Your task to perform on an android device: Open Google Chrome and click the shortcut for Amazon.com Image 0: 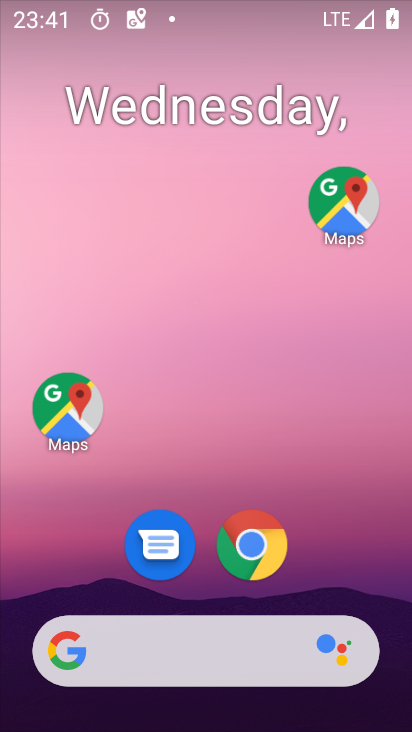
Step 0: click (250, 544)
Your task to perform on an android device: Open Google Chrome and click the shortcut for Amazon.com Image 1: 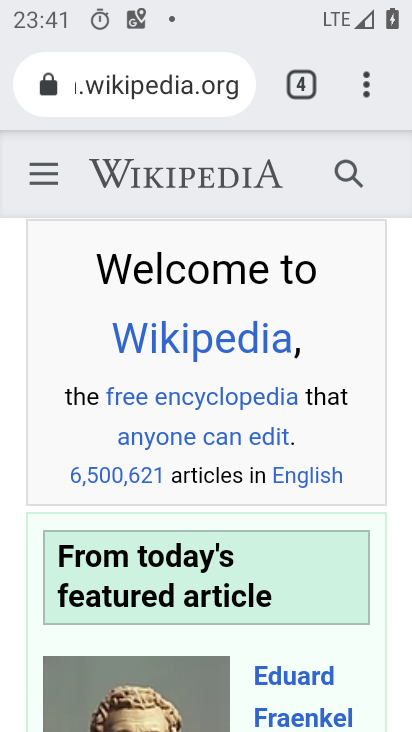
Step 1: click (366, 91)
Your task to perform on an android device: Open Google Chrome and click the shortcut for Amazon.com Image 2: 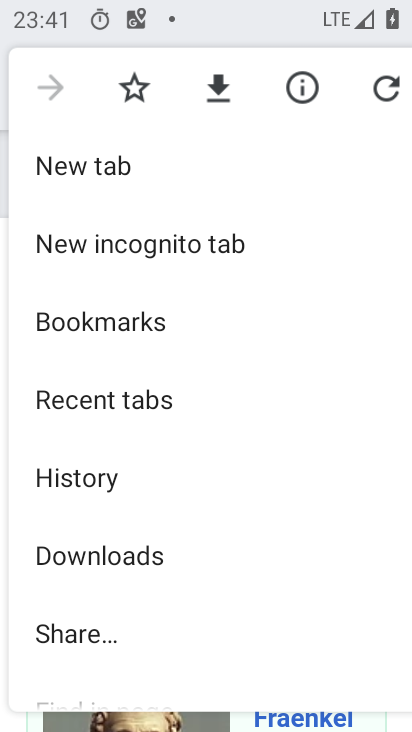
Step 2: click (184, 163)
Your task to perform on an android device: Open Google Chrome and click the shortcut for Amazon.com Image 3: 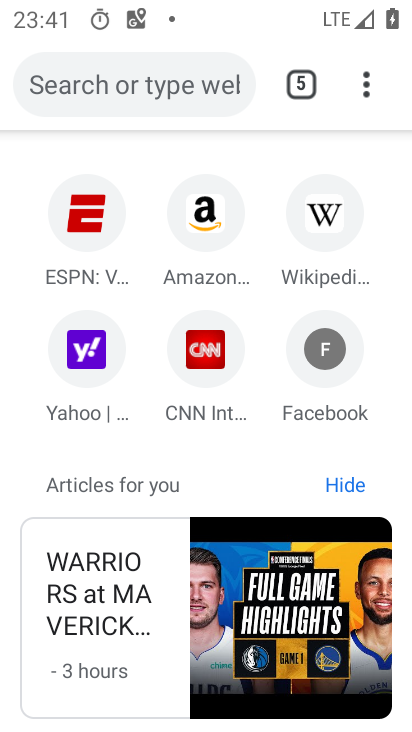
Step 3: click (215, 236)
Your task to perform on an android device: Open Google Chrome and click the shortcut for Amazon.com Image 4: 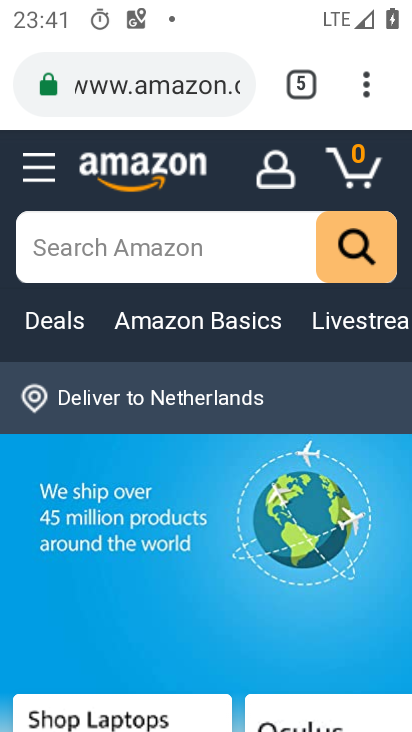
Step 4: task complete